Your task to perform on an android device: Clear the cart on bestbuy.com. Add "logitech g pro" to the cart on bestbuy.com Image 0: 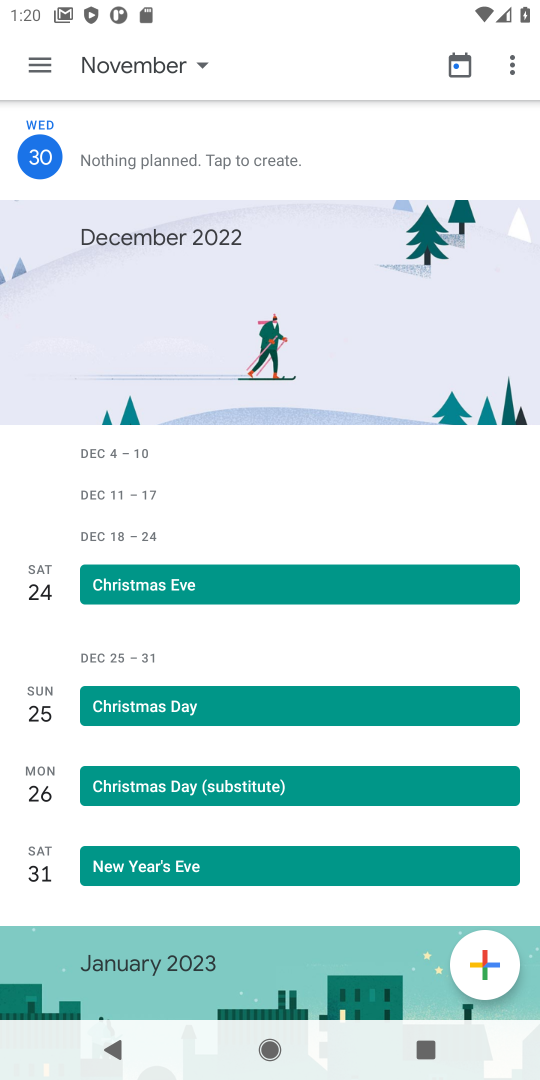
Step 0: press home button
Your task to perform on an android device: Clear the cart on bestbuy.com. Add "logitech g pro" to the cart on bestbuy.com Image 1: 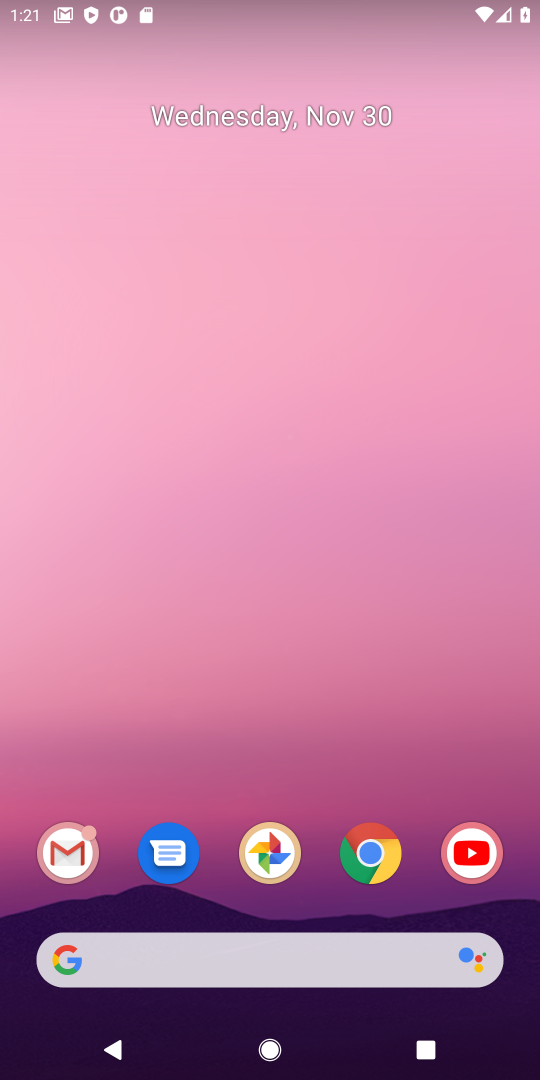
Step 1: click (383, 857)
Your task to perform on an android device: Clear the cart on bestbuy.com. Add "logitech g pro" to the cart on bestbuy.com Image 2: 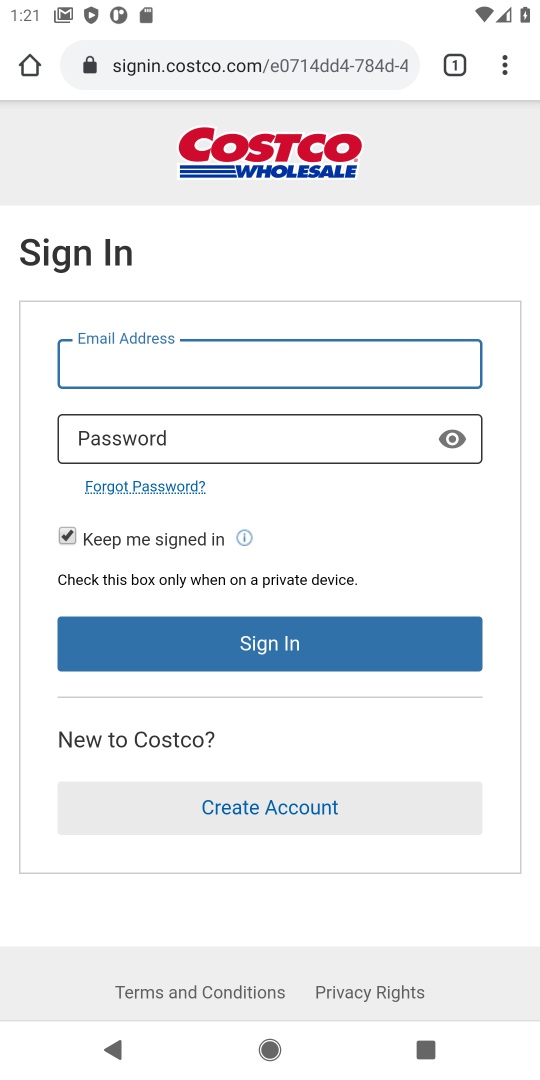
Step 2: click (219, 69)
Your task to perform on an android device: Clear the cart on bestbuy.com. Add "logitech g pro" to the cart on bestbuy.com Image 3: 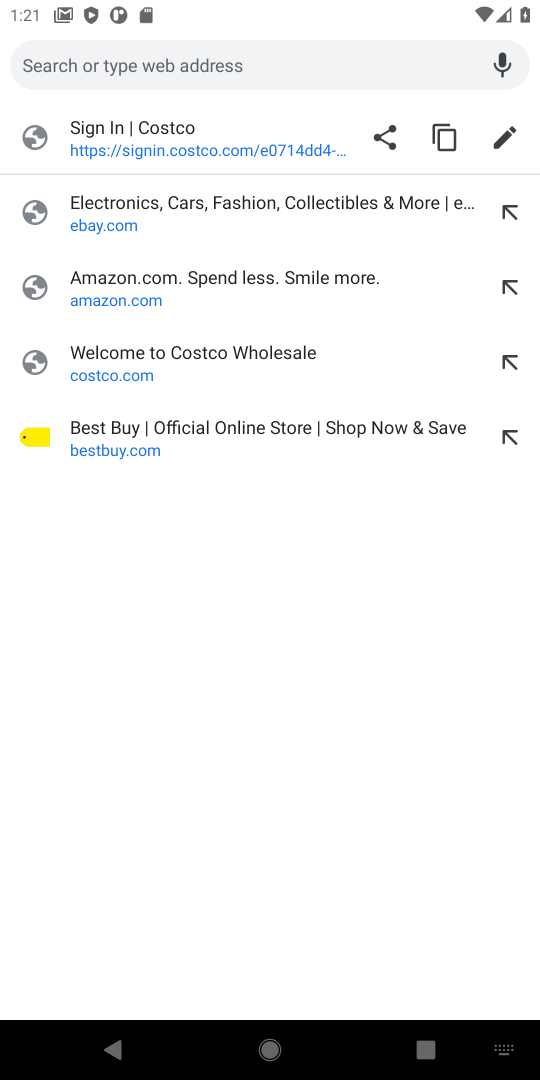
Step 3: click (97, 422)
Your task to perform on an android device: Clear the cart on bestbuy.com. Add "logitech g pro" to the cart on bestbuy.com Image 4: 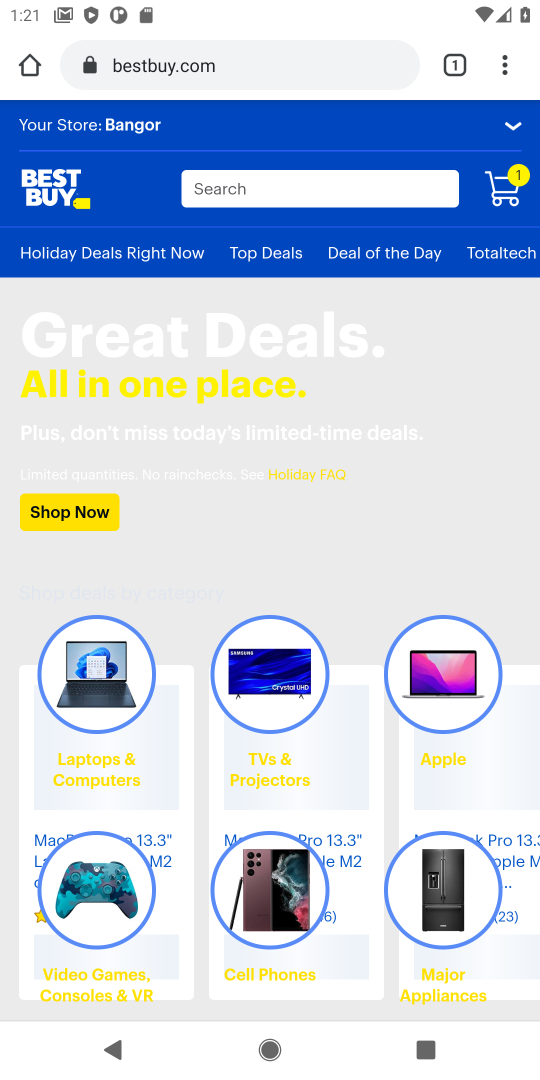
Step 4: click (504, 188)
Your task to perform on an android device: Clear the cart on bestbuy.com. Add "logitech g pro" to the cart on bestbuy.com Image 5: 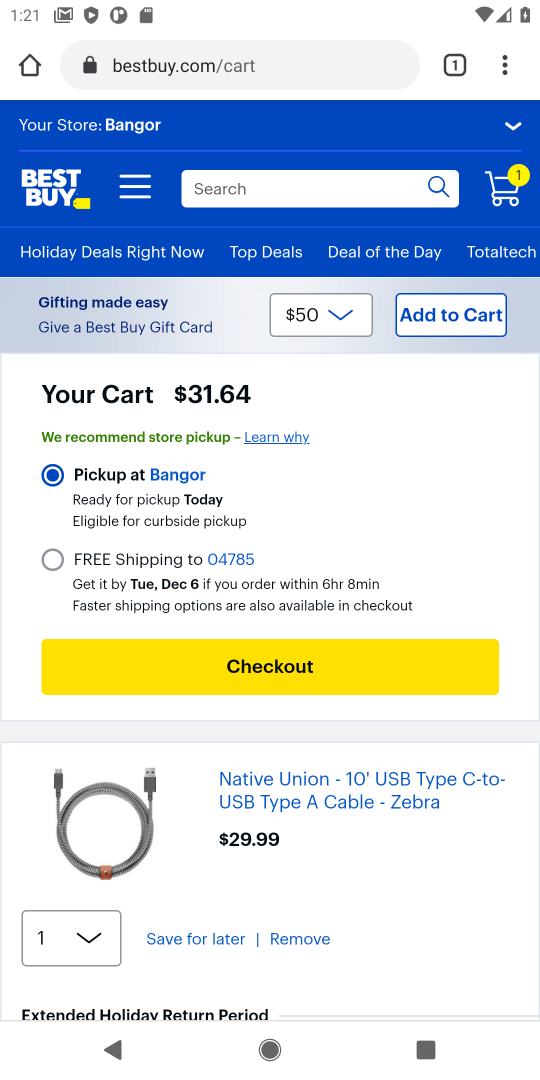
Step 5: drag from (424, 584) to (385, 221)
Your task to perform on an android device: Clear the cart on bestbuy.com. Add "logitech g pro" to the cart on bestbuy.com Image 6: 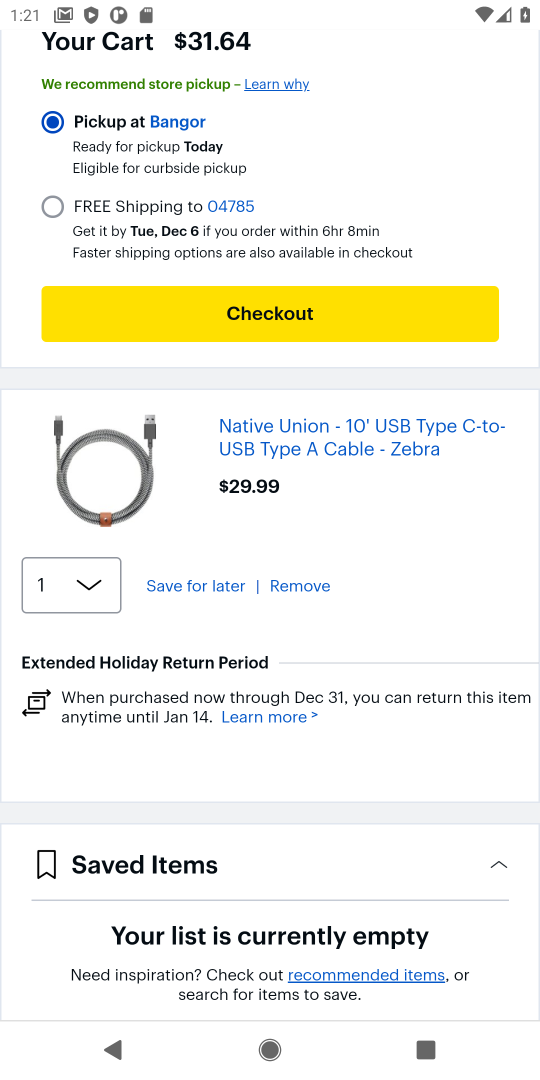
Step 6: click (288, 595)
Your task to perform on an android device: Clear the cart on bestbuy.com. Add "logitech g pro" to the cart on bestbuy.com Image 7: 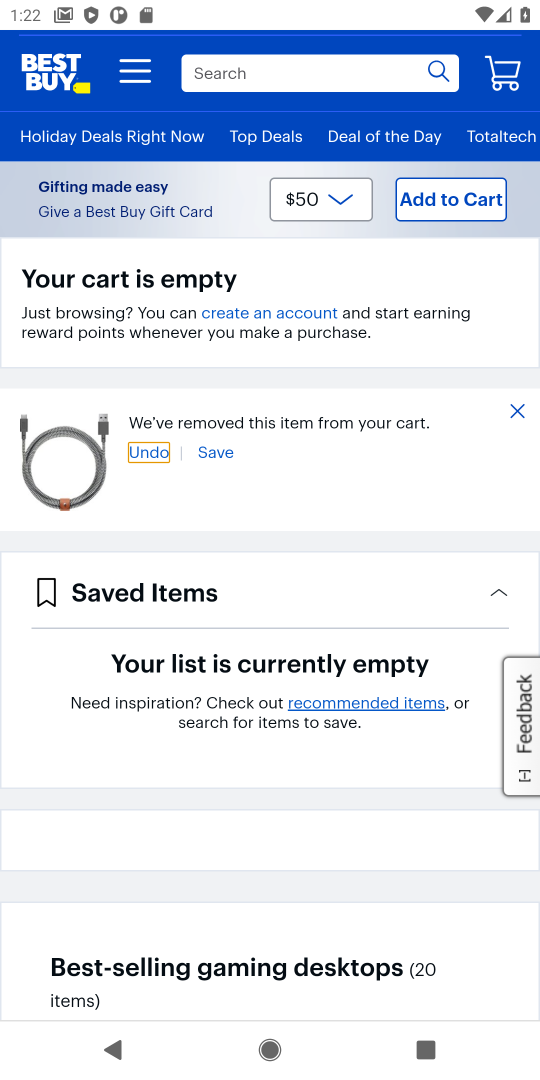
Step 7: click (232, 68)
Your task to perform on an android device: Clear the cart on bestbuy.com. Add "logitech g pro" to the cart on bestbuy.com Image 8: 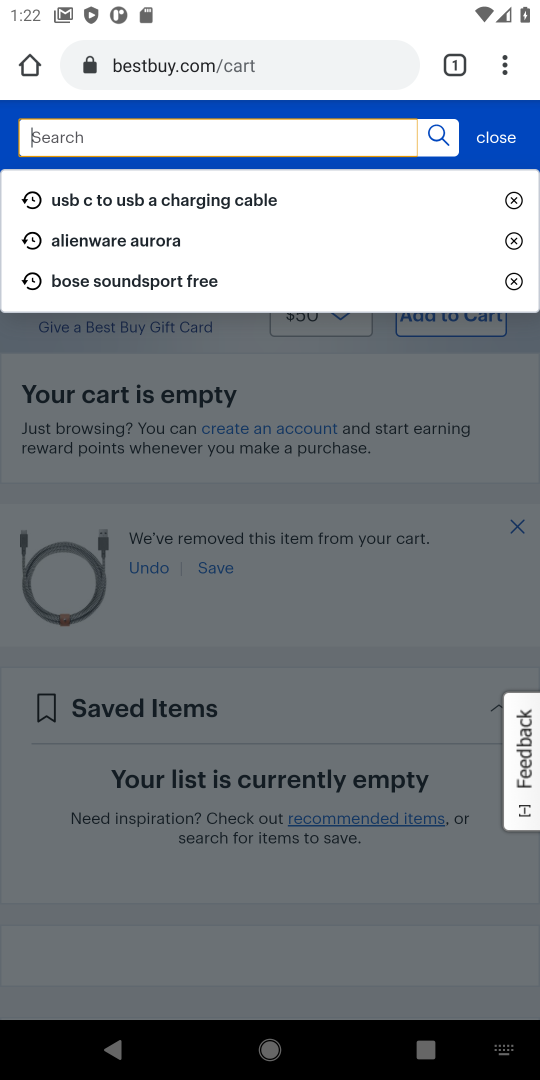
Step 8: type "logitech g pro"
Your task to perform on an android device: Clear the cart on bestbuy.com. Add "logitech g pro" to the cart on bestbuy.com Image 9: 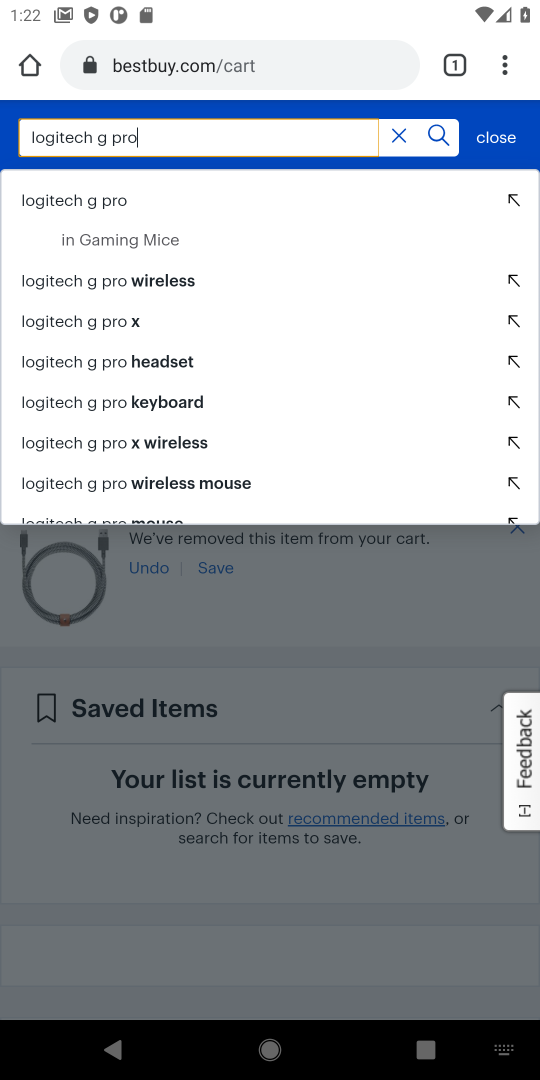
Step 9: click (102, 199)
Your task to perform on an android device: Clear the cart on bestbuy.com. Add "logitech g pro" to the cart on bestbuy.com Image 10: 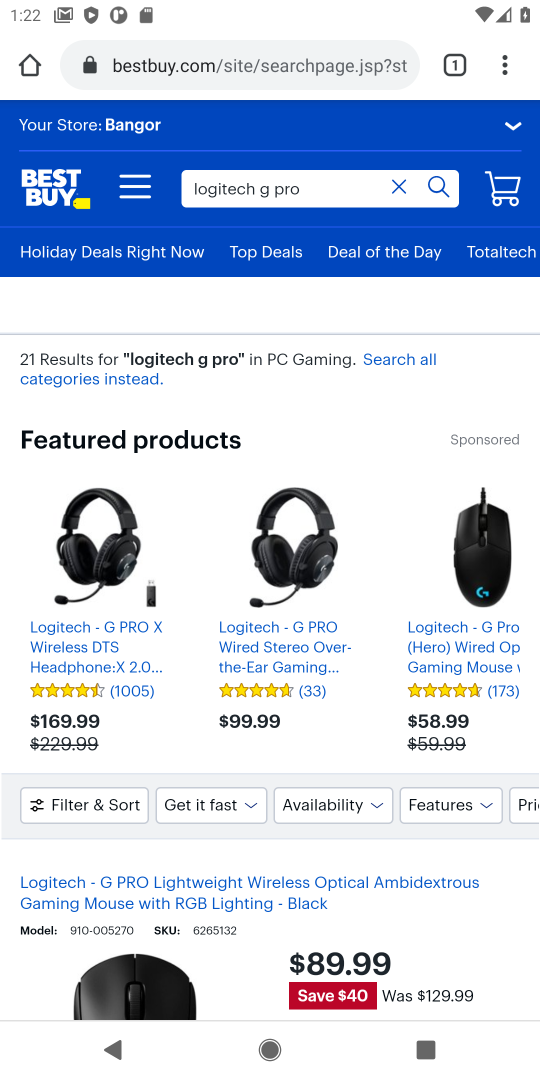
Step 10: drag from (442, 876) to (420, 502)
Your task to perform on an android device: Clear the cart on bestbuy.com. Add "logitech g pro" to the cart on bestbuy.com Image 11: 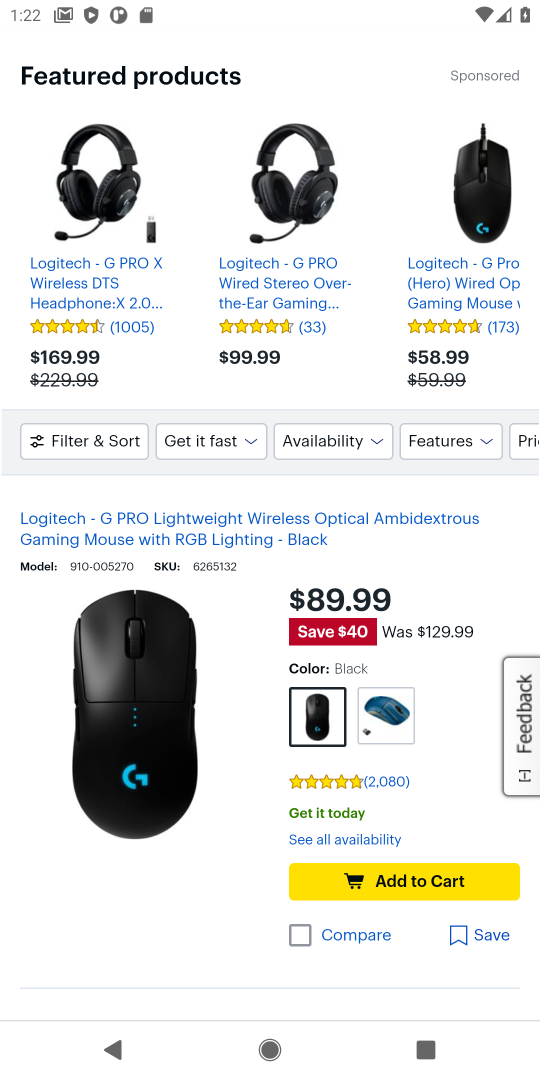
Step 11: click (359, 874)
Your task to perform on an android device: Clear the cart on bestbuy.com. Add "logitech g pro" to the cart on bestbuy.com Image 12: 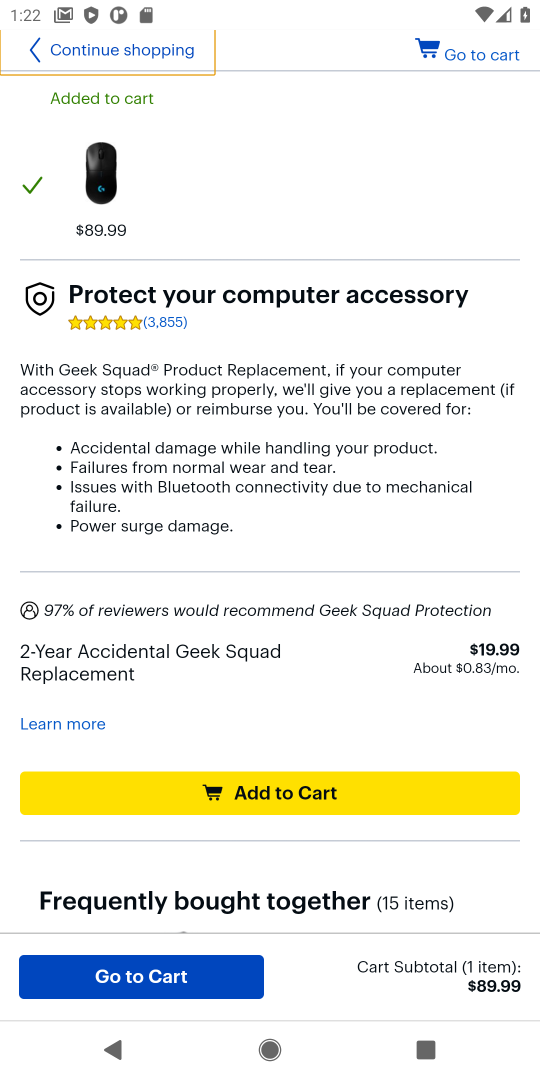
Step 12: task complete